Your task to perform on an android device: Go to privacy settings Image 0: 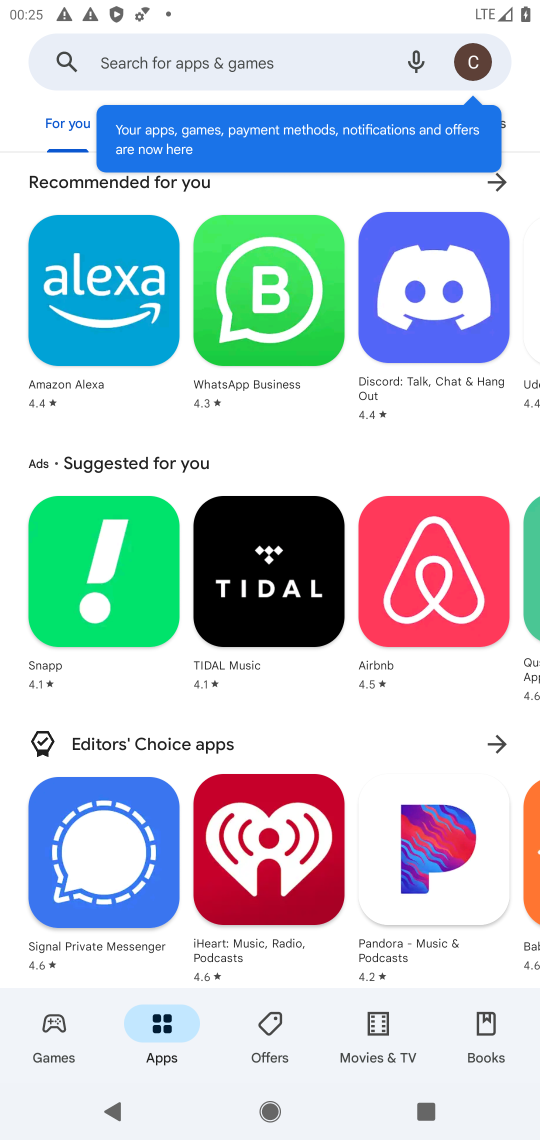
Step 0: press home button
Your task to perform on an android device: Go to privacy settings Image 1: 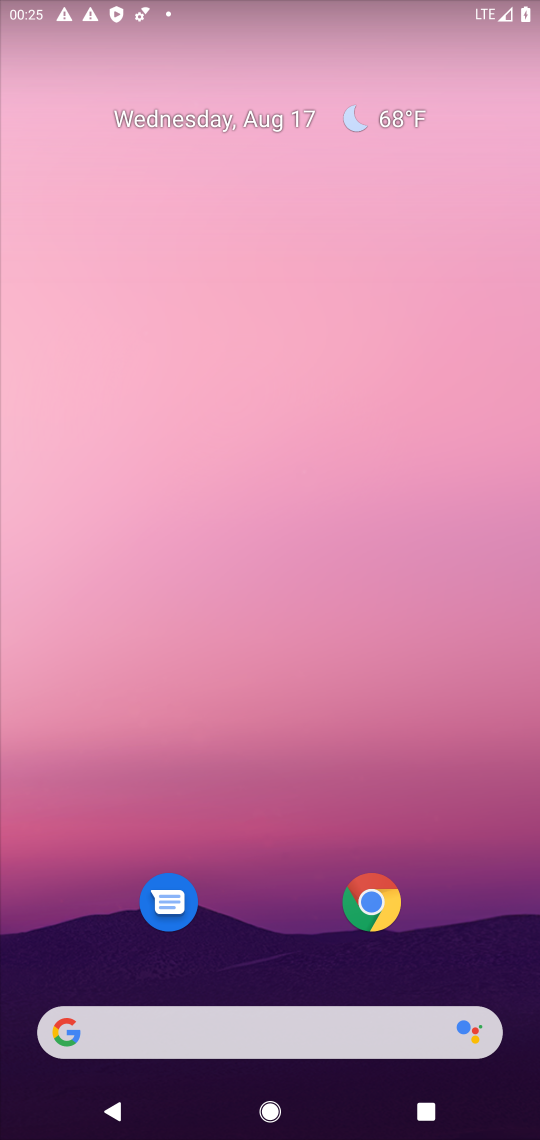
Step 1: drag from (255, 921) to (531, 17)
Your task to perform on an android device: Go to privacy settings Image 2: 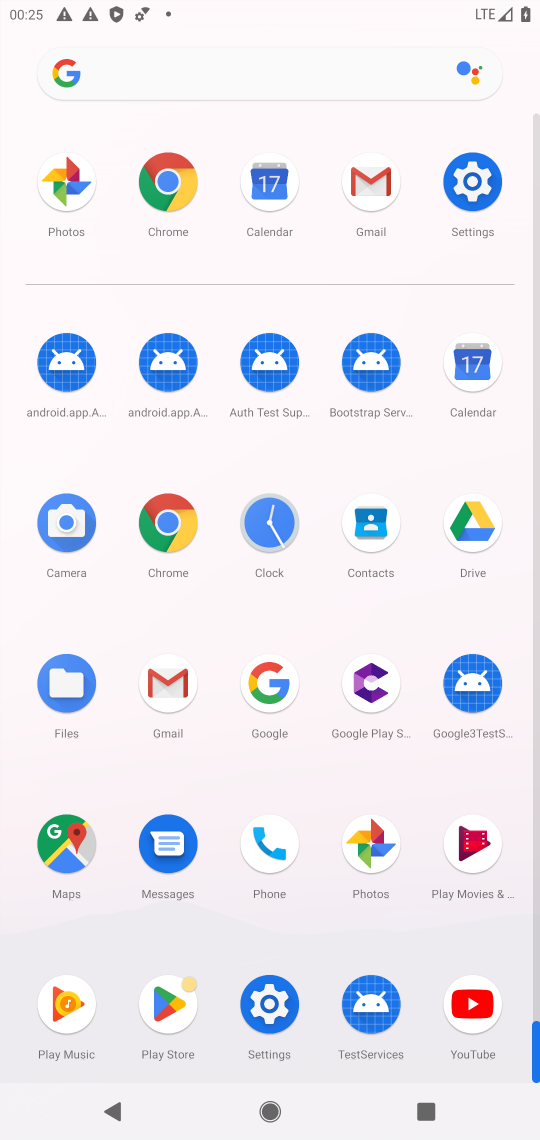
Step 2: click (472, 203)
Your task to perform on an android device: Go to privacy settings Image 3: 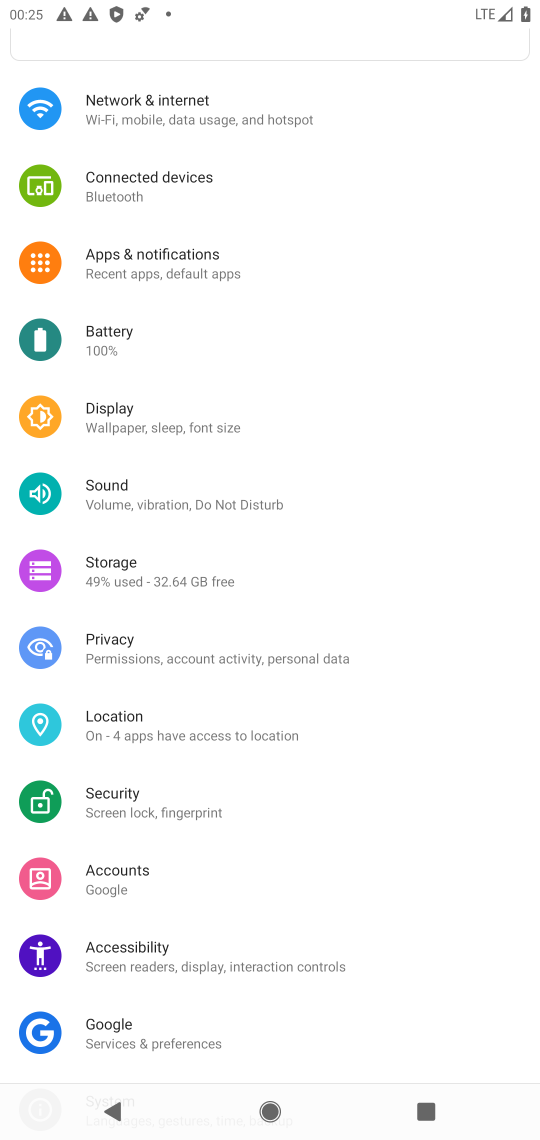
Step 3: click (143, 649)
Your task to perform on an android device: Go to privacy settings Image 4: 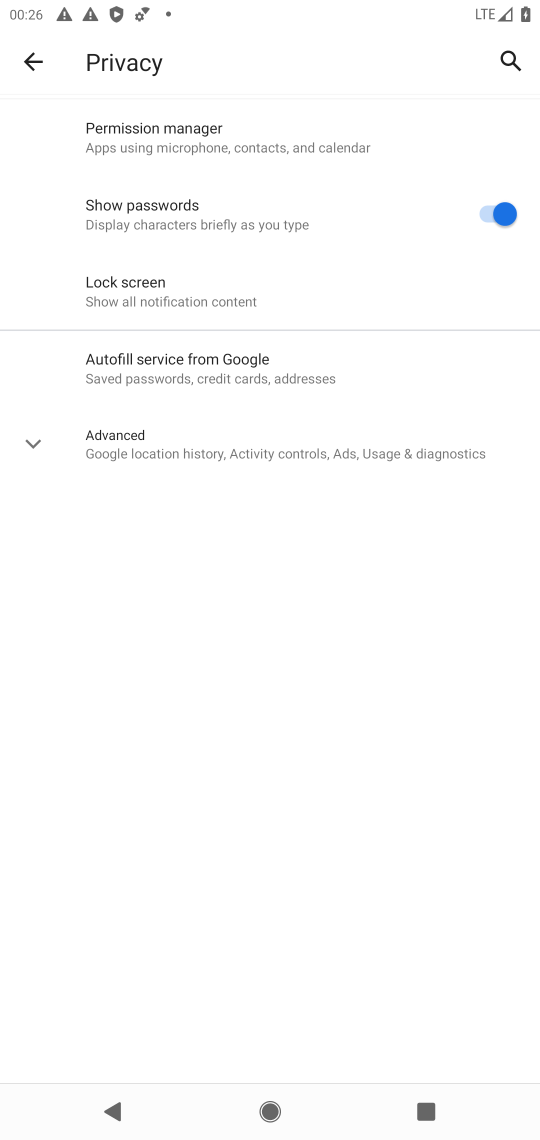
Step 4: task complete